Your task to perform on an android device: all mails in gmail Image 0: 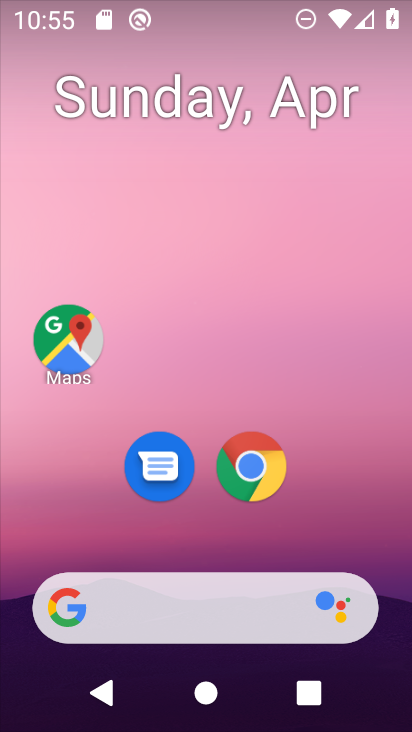
Step 0: drag from (370, 523) to (380, 109)
Your task to perform on an android device: all mails in gmail Image 1: 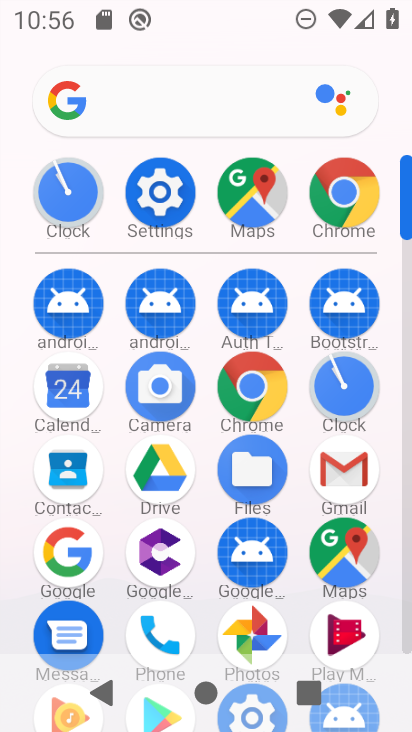
Step 1: click (348, 477)
Your task to perform on an android device: all mails in gmail Image 2: 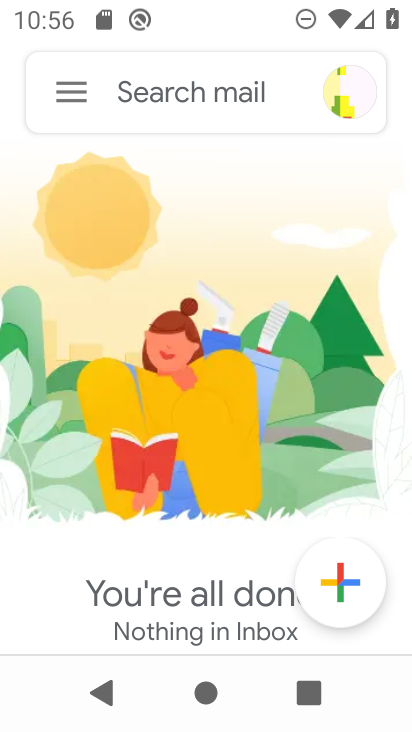
Step 2: click (68, 91)
Your task to perform on an android device: all mails in gmail Image 3: 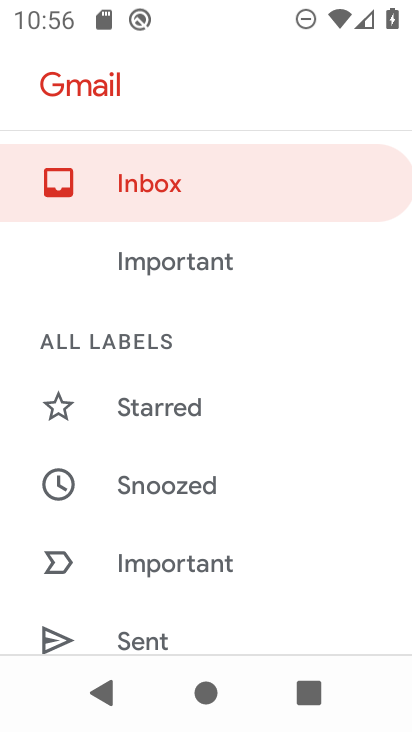
Step 3: drag from (304, 538) to (317, 320)
Your task to perform on an android device: all mails in gmail Image 4: 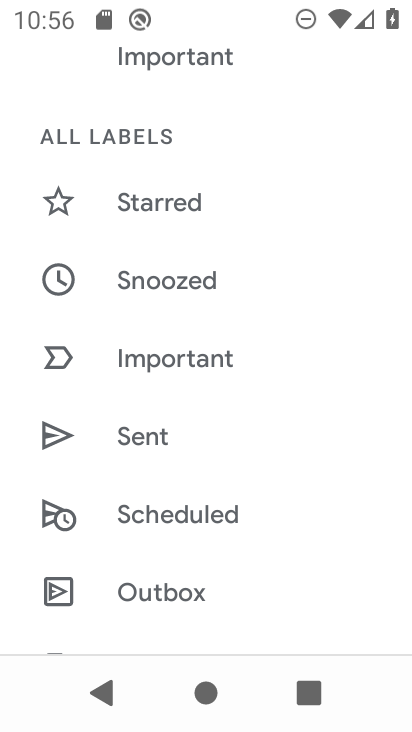
Step 4: drag from (304, 566) to (309, 325)
Your task to perform on an android device: all mails in gmail Image 5: 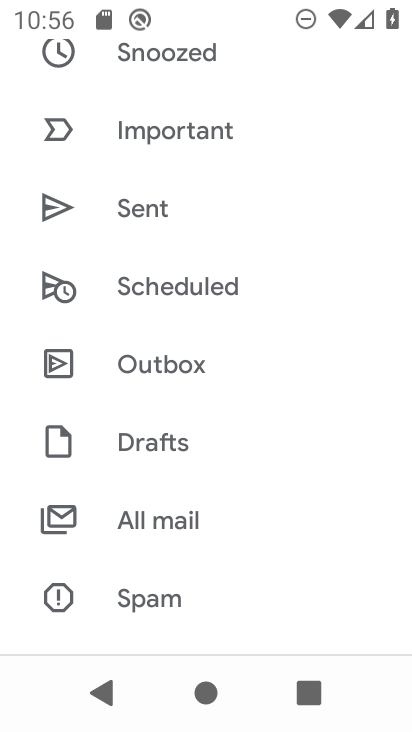
Step 5: click (169, 531)
Your task to perform on an android device: all mails in gmail Image 6: 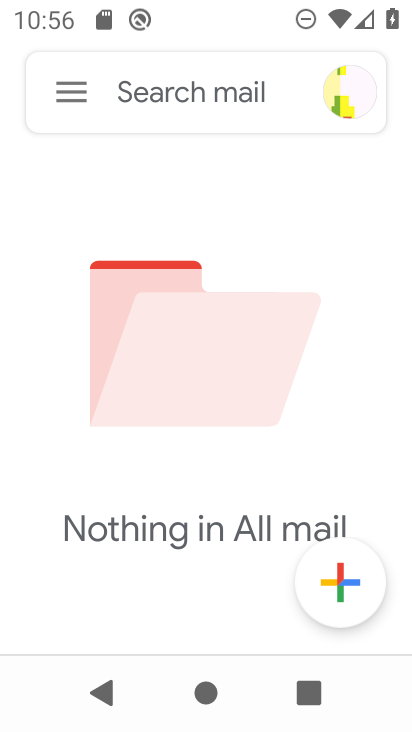
Step 6: task complete